Your task to perform on an android device: Open network settings Image 0: 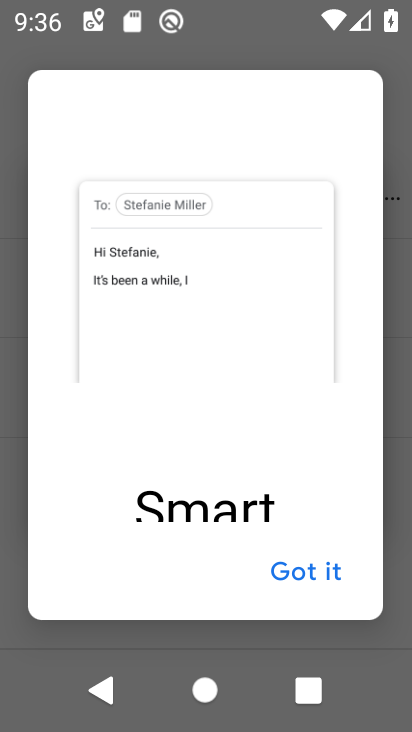
Step 0: press home button
Your task to perform on an android device: Open network settings Image 1: 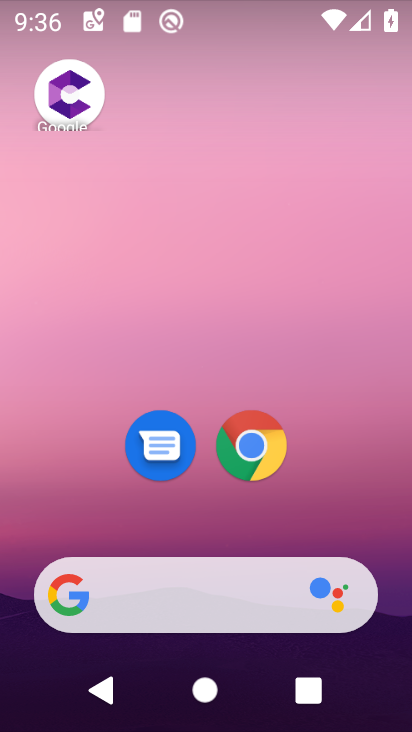
Step 1: drag from (311, 503) to (305, 184)
Your task to perform on an android device: Open network settings Image 2: 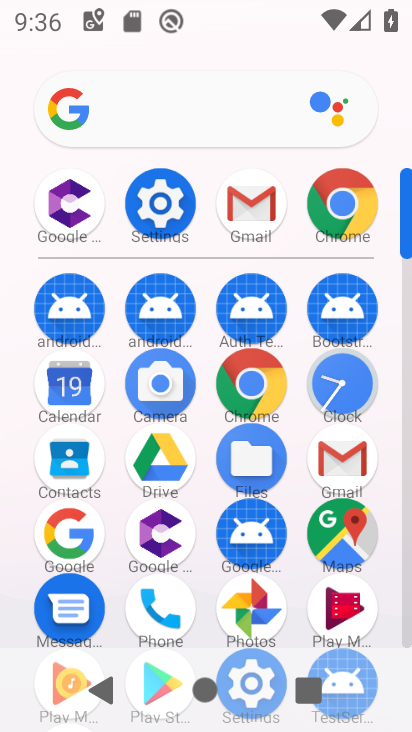
Step 2: click (159, 226)
Your task to perform on an android device: Open network settings Image 3: 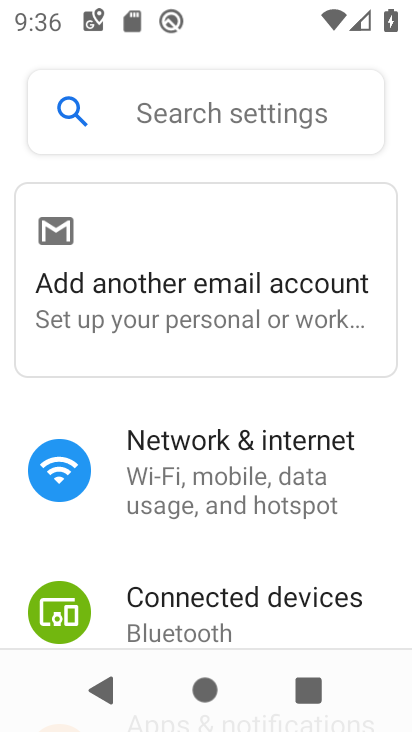
Step 3: click (161, 522)
Your task to perform on an android device: Open network settings Image 4: 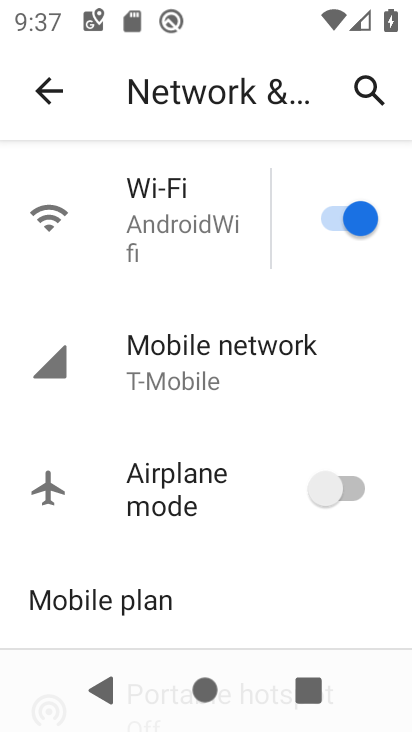
Step 4: click (198, 363)
Your task to perform on an android device: Open network settings Image 5: 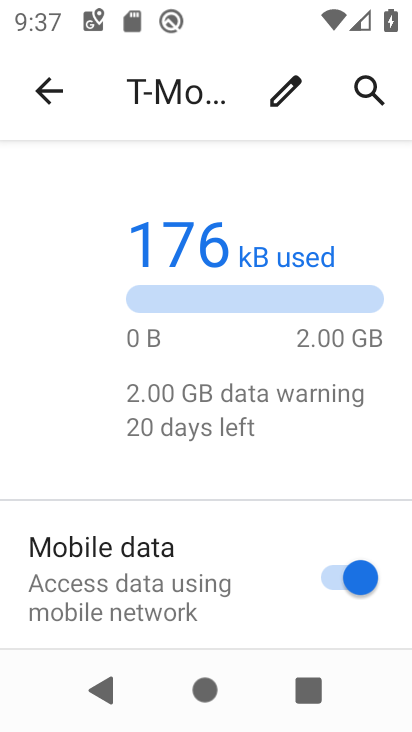
Step 5: task complete